Your task to perform on an android device: Open the calendar app, open the side menu, and click the "Day" option Image 0: 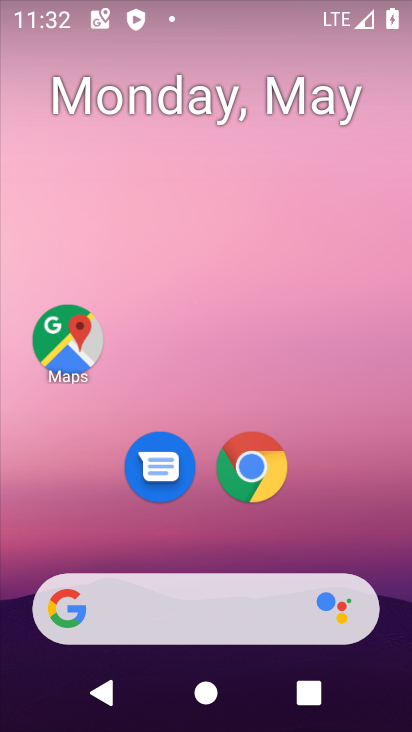
Step 0: click (244, 466)
Your task to perform on an android device: Open the calendar app, open the side menu, and click the "Day" option Image 1: 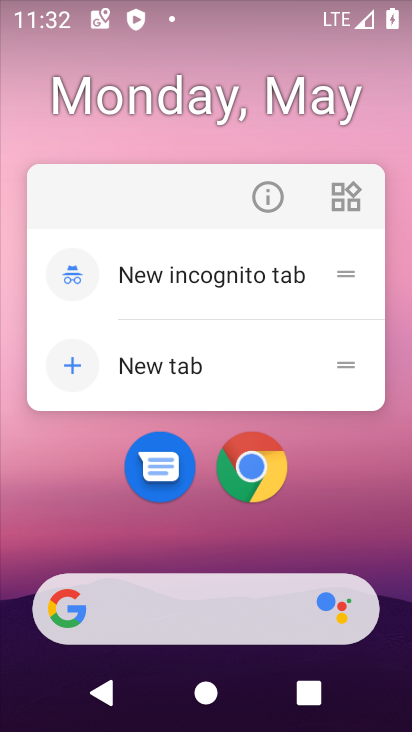
Step 1: click (329, 444)
Your task to perform on an android device: Open the calendar app, open the side menu, and click the "Day" option Image 2: 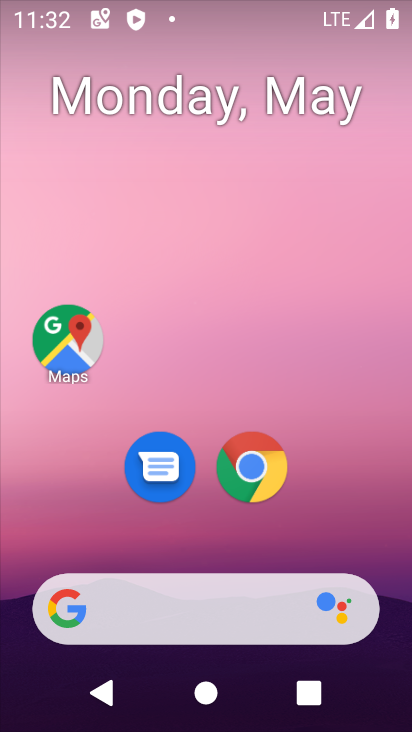
Step 2: drag from (409, 650) to (313, 111)
Your task to perform on an android device: Open the calendar app, open the side menu, and click the "Day" option Image 3: 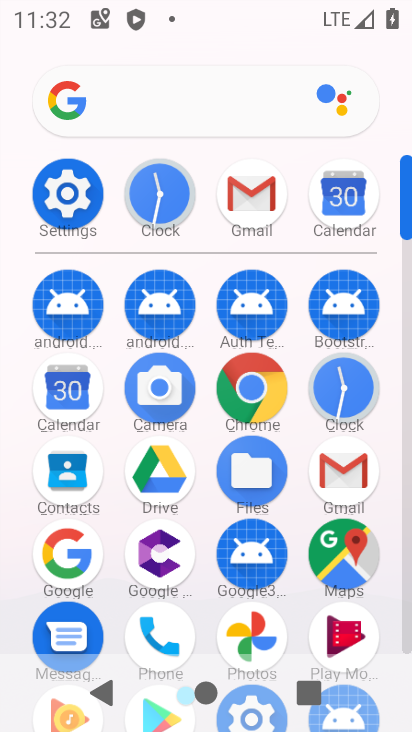
Step 3: click (70, 408)
Your task to perform on an android device: Open the calendar app, open the side menu, and click the "Day" option Image 4: 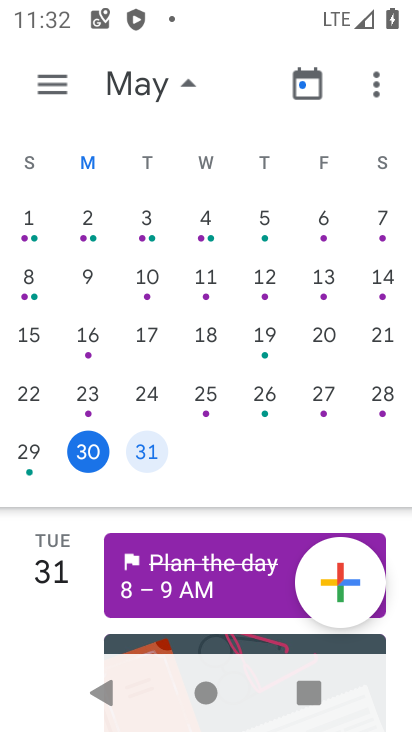
Step 4: click (38, 85)
Your task to perform on an android device: Open the calendar app, open the side menu, and click the "Day" option Image 5: 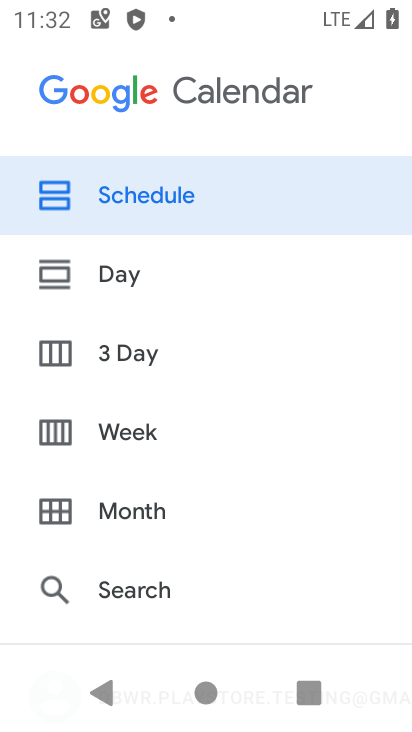
Step 5: click (113, 277)
Your task to perform on an android device: Open the calendar app, open the side menu, and click the "Day" option Image 6: 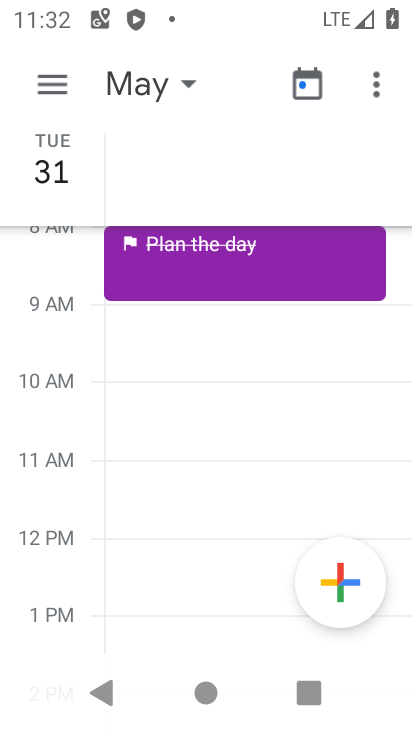
Step 6: task complete